Your task to perform on an android device: Install the Pandora app Image 0: 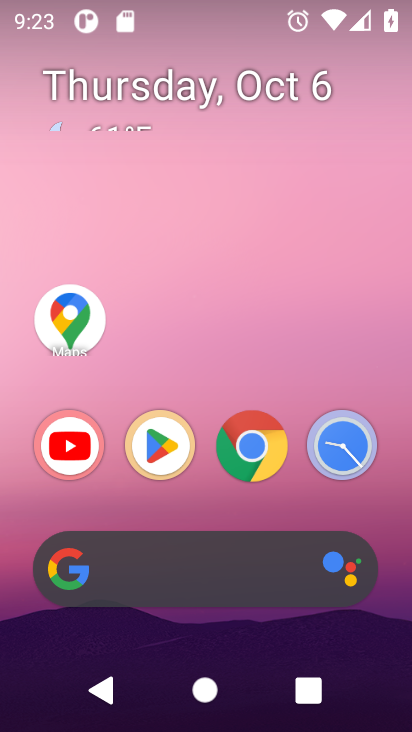
Step 0: click (143, 458)
Your task to perform on an android device: Install the Pandora app Image 1: 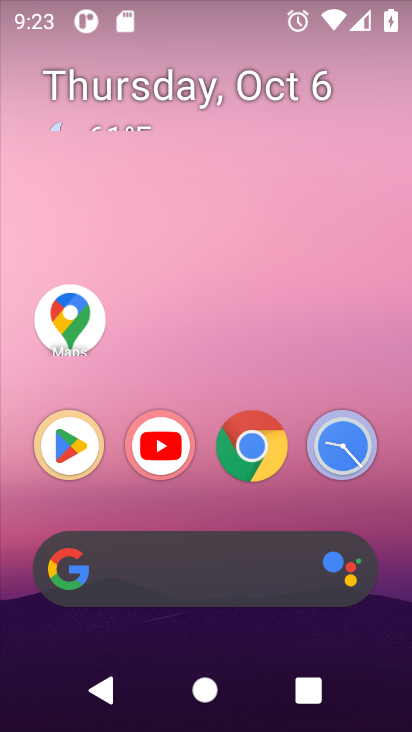
Step 1: click (225, 562)
Your task to perform on an android device: Install the Pandora app Image 2: 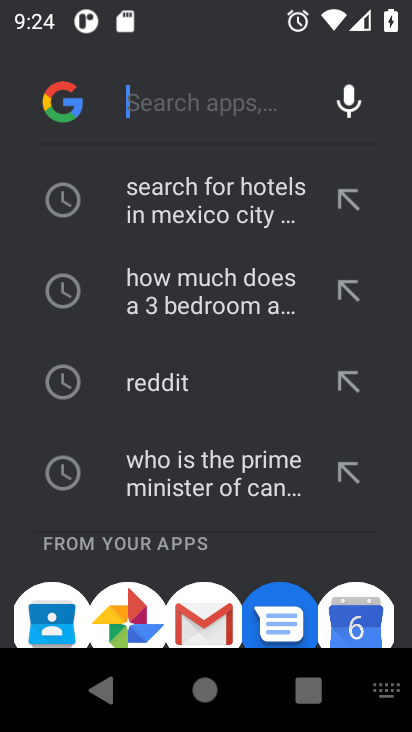
Step 2: type "pandora app"
Your task to perform on an android device: Install the Pandora app Image 3: 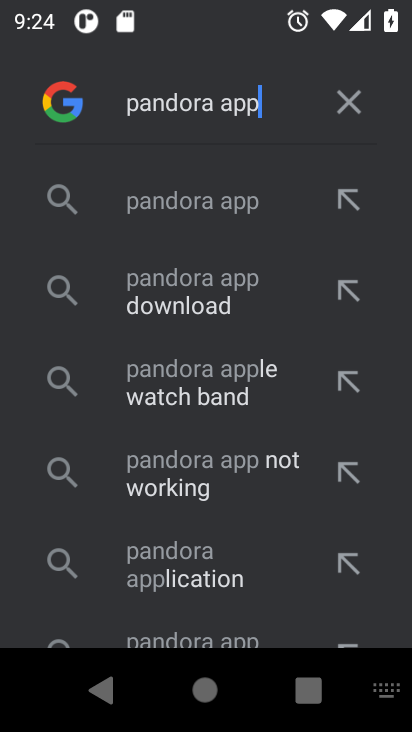
Step 3: click (165, 226)
Your task to perform on an android device: Install the Pandora app Image 4: 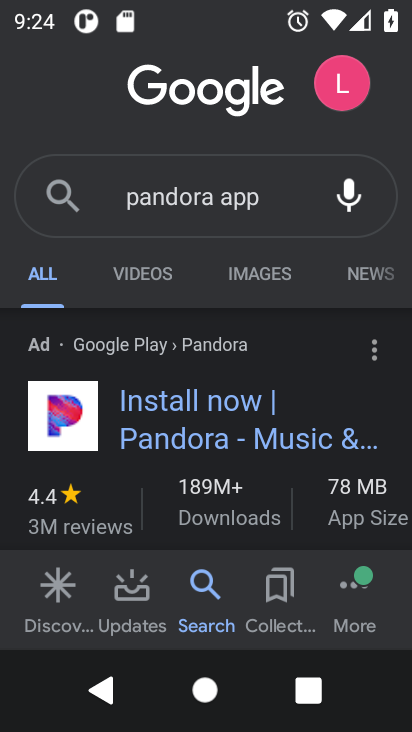
Step 4: click (191, 382)
Your task to perform on an android device: Install the Pandora app Image 5: 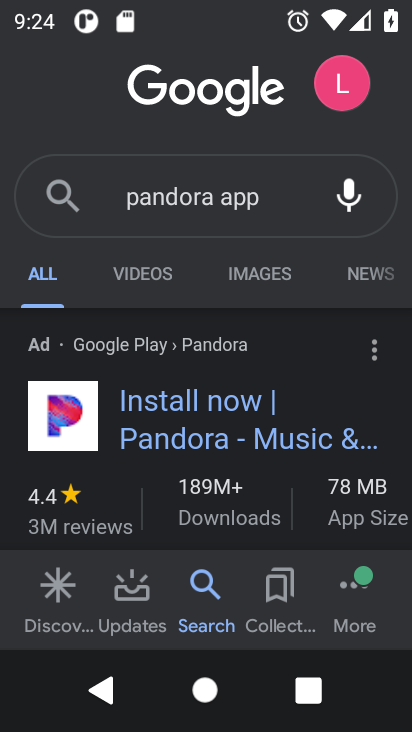
Step 5: click (167, 410)
Your task to perform on an android device: Install the Pandora app Image 6: 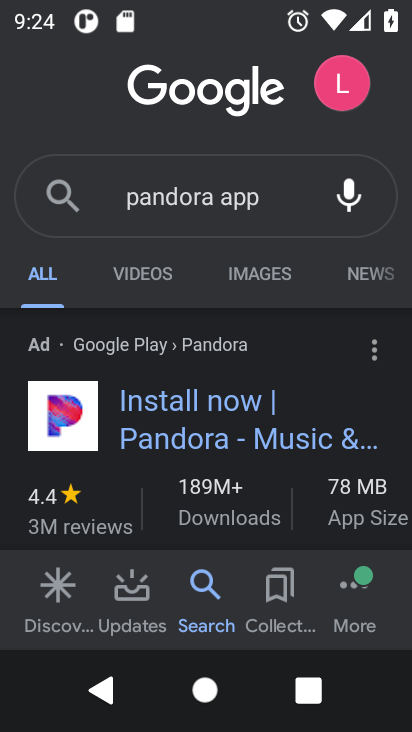
Step 6: drag from (146, 451) to (202, 209)
Your task to perform on an android device: Install the Pandora app Image 7: 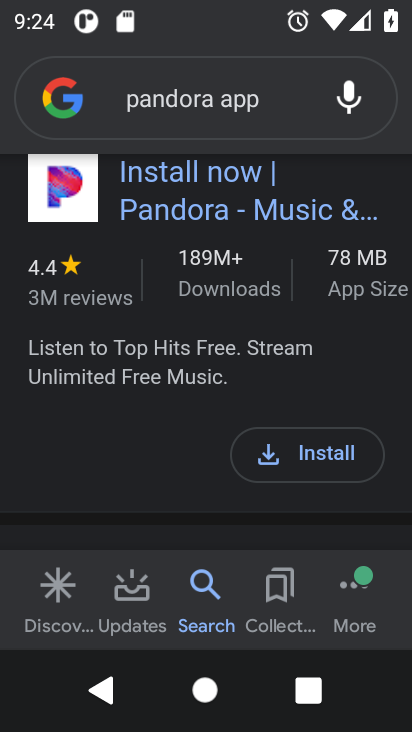
Step 7: click (266, 469)
Your task to perform on an android device: Install the Pandora app Image 8: 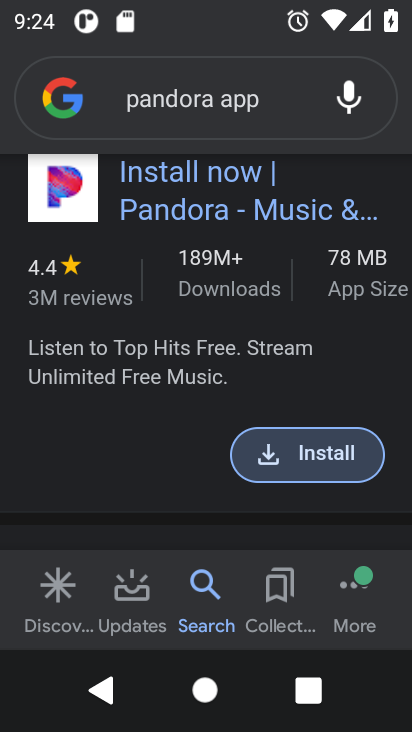
Step 8: click (266, 469)
Your task to perform on an android device: Install the Pandora app Image 9: 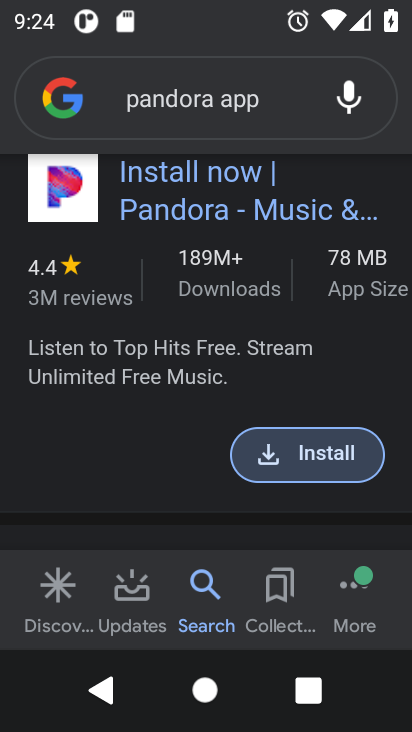
Step 9: click (266, 469)
Your task to perform on an android device: Install the Pandora app Image 10: 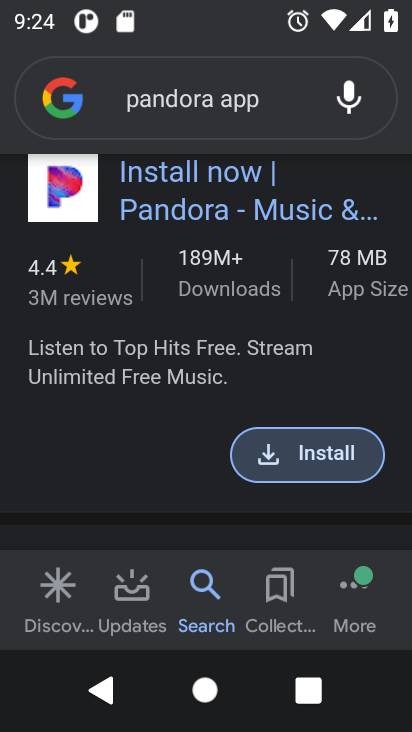
Step 10: task complete